Your task to perform on an android device: Is it going to rain today? Image 0: 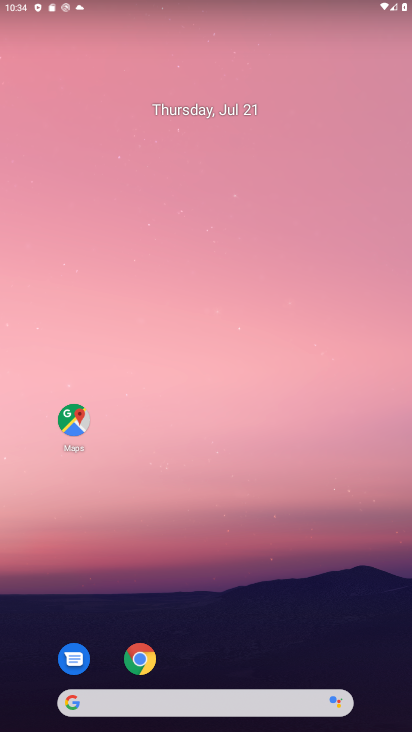
Step 0: click (247, 691)
Your task to perform on an android device: Is it going to rain today? Image 1: 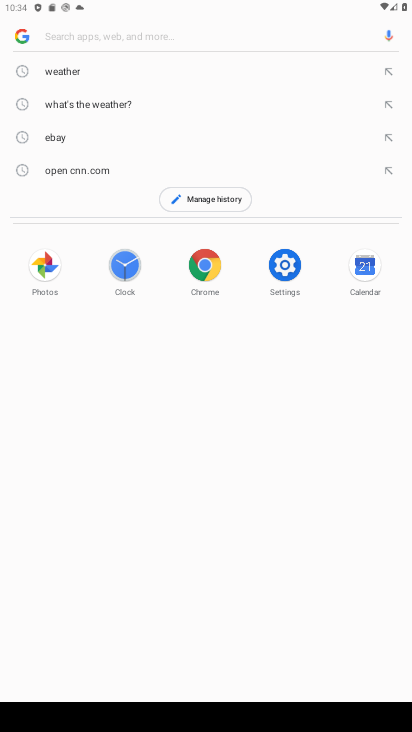
Step 1: click (71, 65)
Your task to perform on an android device: Is it going to rain today? Image 2: 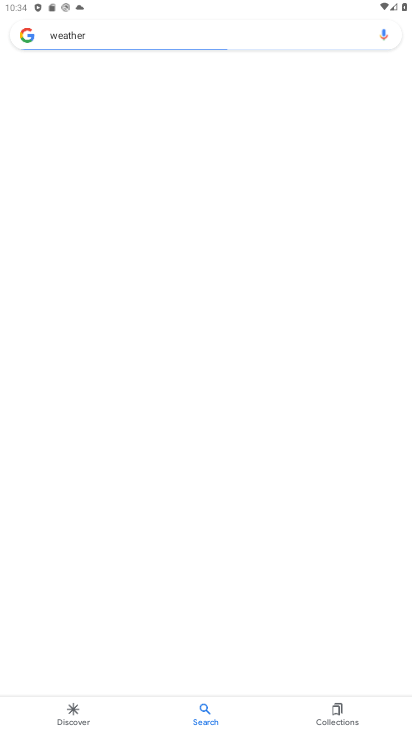
Step 2: task complete